Your task to perform on an android device: Go to Android settings Image 0: 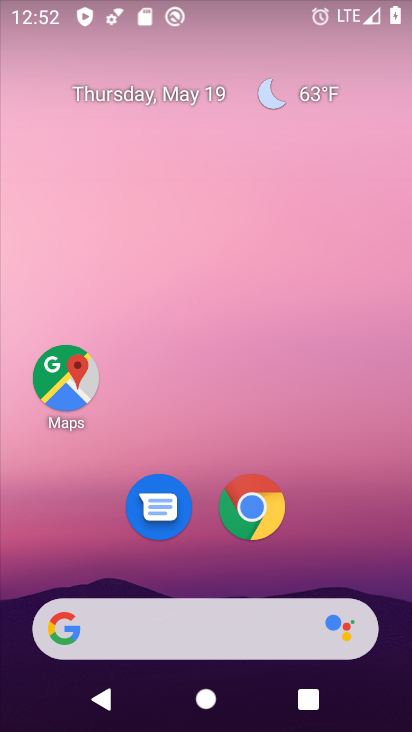
Step 0: drag from (272, 567) to (277, 256)
Your task to perform on an android device: Go to Android settings Image 1: 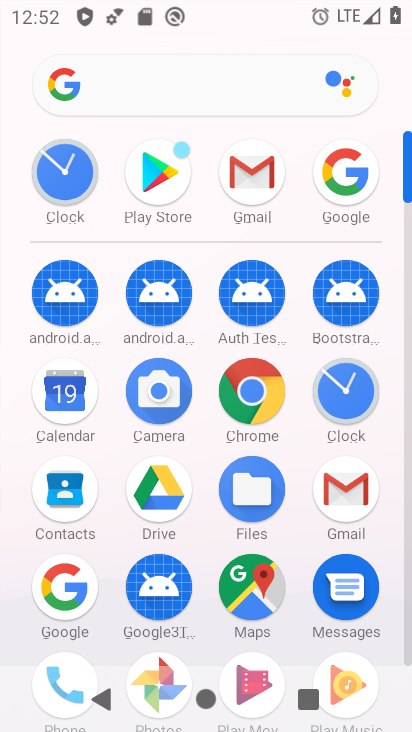
Step 1: drag from (187, 419) to (221, 177)
Your task to perform on an android device: Go to Android settings Image 2: 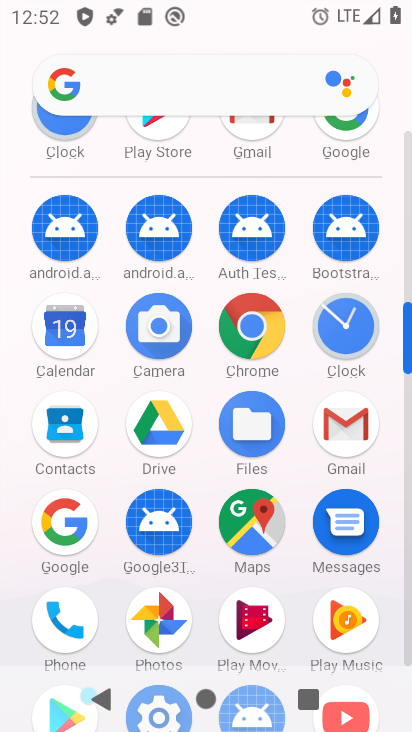
Step 2: drag from (251, 631) to (248, 254)
Your task to perform on an android device: Go to Android settings Image 3: 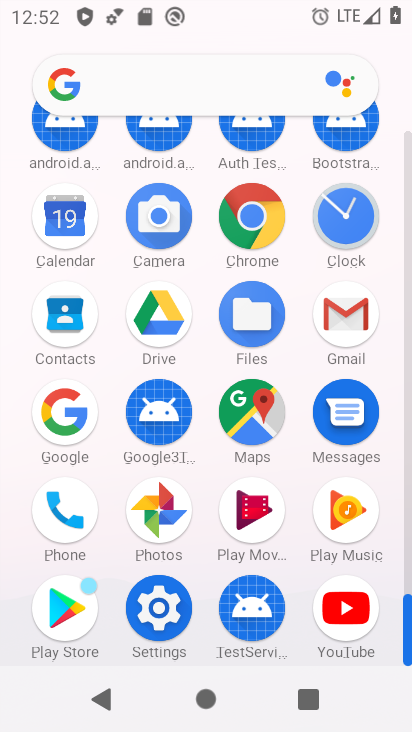
Step 3: click (168, 615)
Your task to perform on an android device: Go to Android settings Image 4: 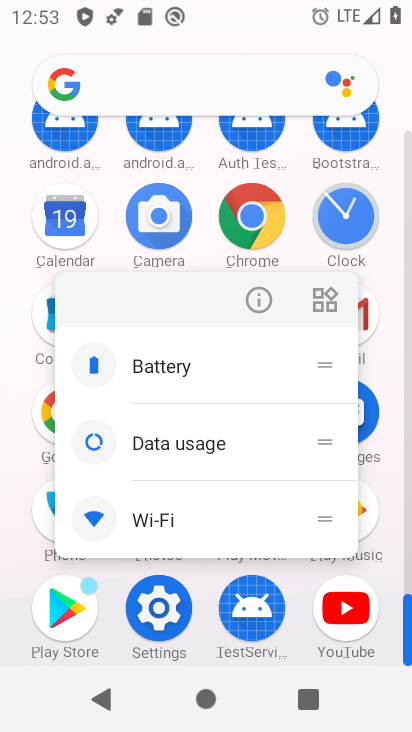
Step 4: click (167, 615)
Your task to perform on an android device: Go to Android settings Image 5: 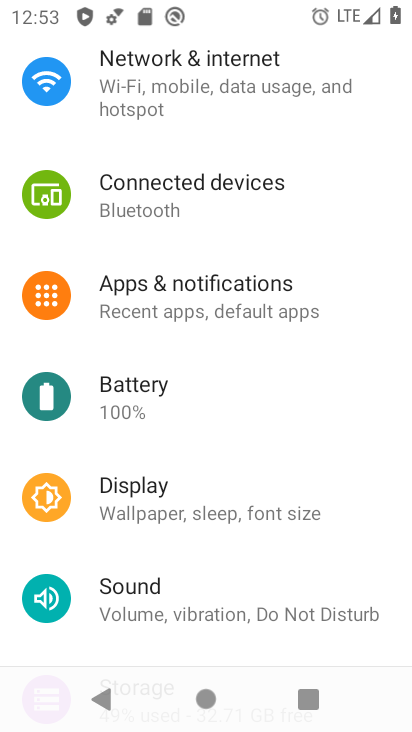
Step 5: task complete